Your task to perform on an android device: turn off notifications settings in the gmail app Image 0: 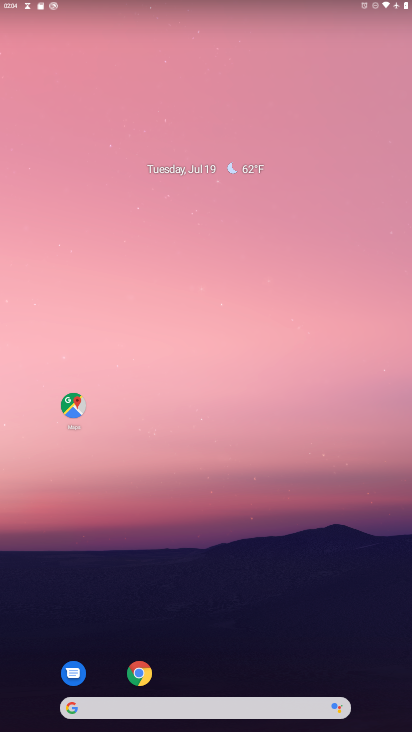
Step 0: drag from (291, 631) to (311, 205)
Your task to perform on an android device: turn off notifications settings in the gmail app Image 1: 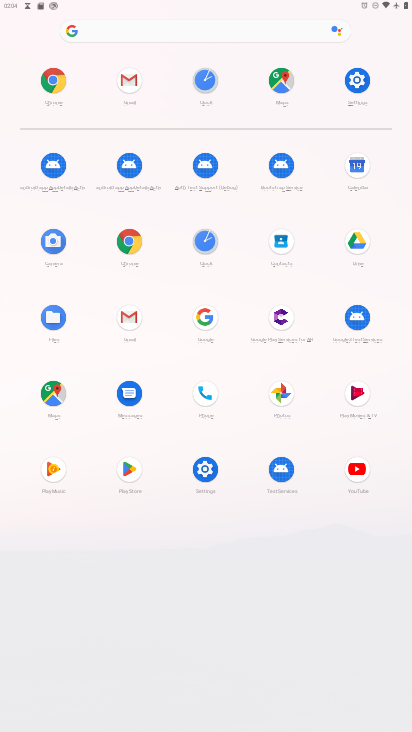
Step 1: click (130, 81)
Your task to perform on an android device: turn off notifications settings in the gmail app Image 2: 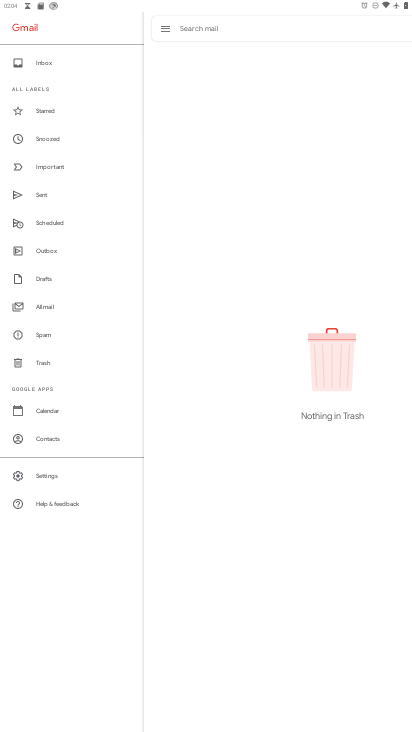
Step 2: click (38, 481)
Your task to perform on an android device: turn off notifications settings in the gmail app Image 3: 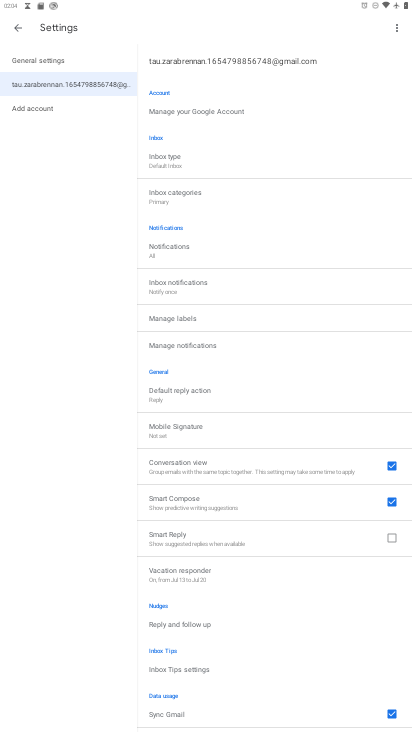
Step 3: click (191, 253)
Your task to perform on an android device: turn off notifications settings in the gmail app Image 4: 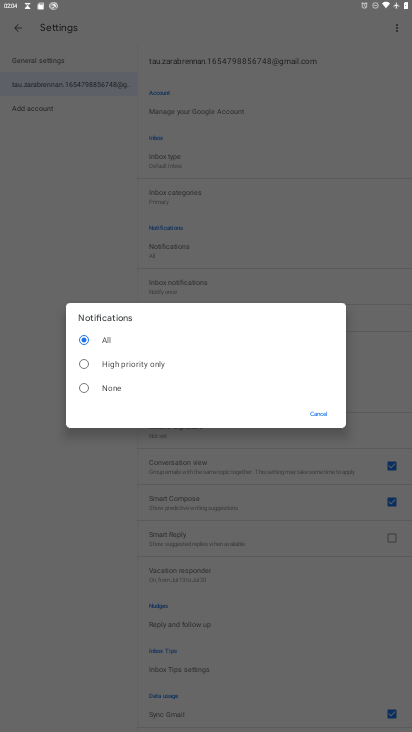
Step 4: click (106, 383)
Your task to perform on an android device: turn off notifications settings in the gmail app Image 5: 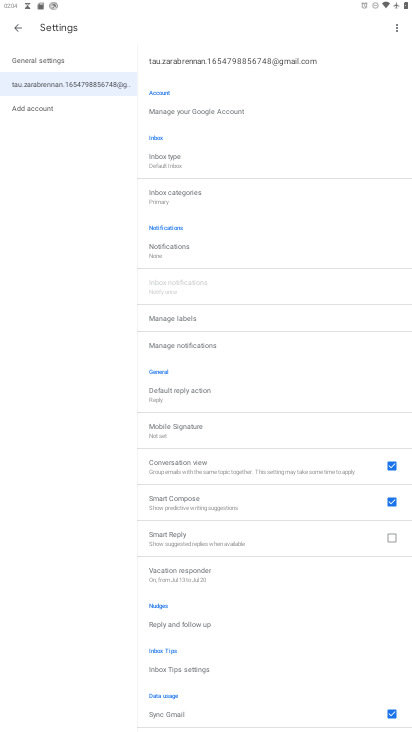
Step 5: task complete